Your task to perform on an android device: open chrome privacy settings Image 0: 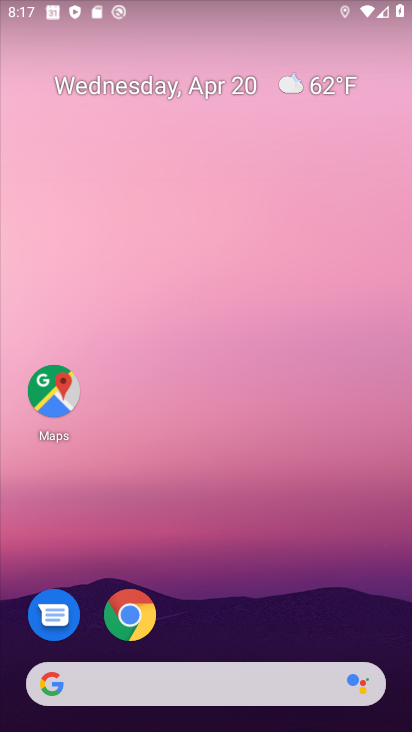
Step 0: drag from (274, 579) to (239, 82)
Your task to perform on an android device: open chrome privacy settings Image 1: 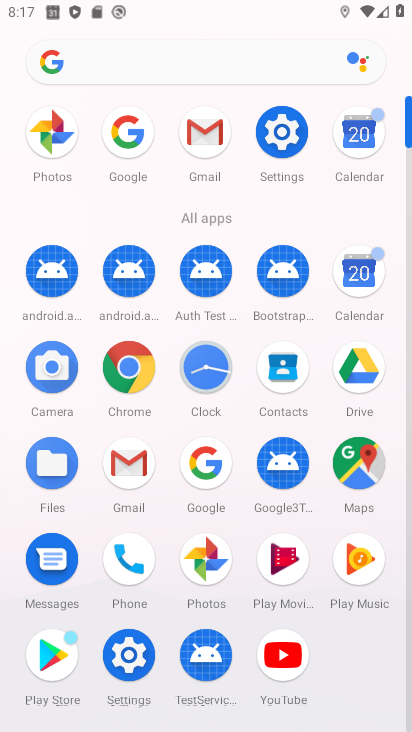
Step 1: click (130, 370)
Your task to perform on an android device: open chrome privacy settings Image 2: 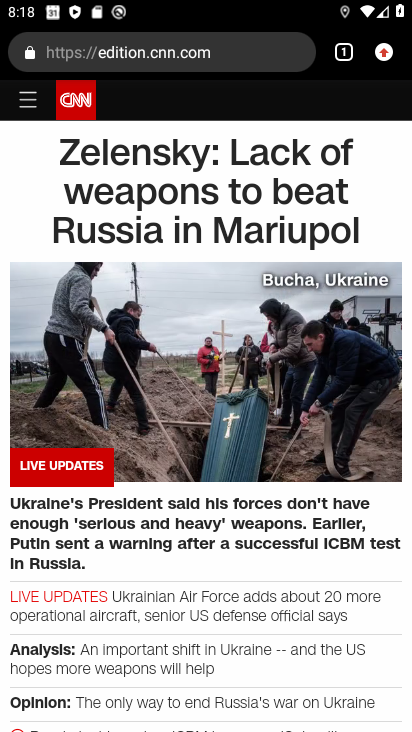
Step 2: click (385, 53)
Your task to perform on an android device: open chrome privacy settings Image 3: 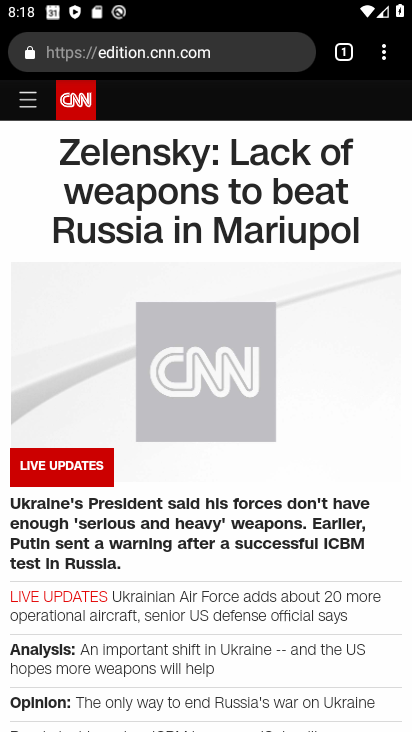
Step 3: click (385, 53)
Your task to perform on an android device: open chrome privacy settings Image 4: 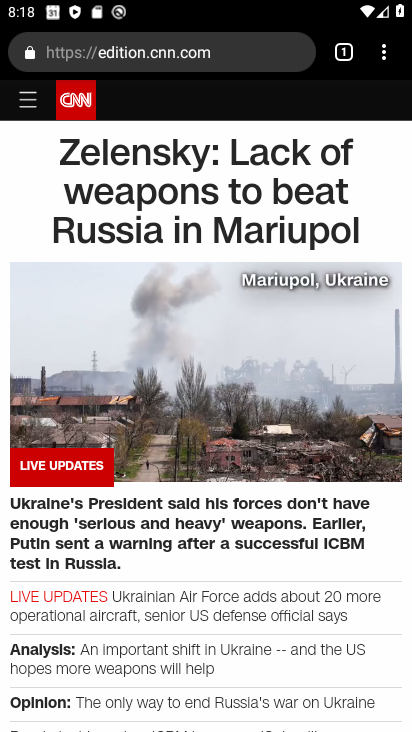
Step 4: click (380, 53)
Your task to perform on an android device: open chrome privacy settings Image 5: 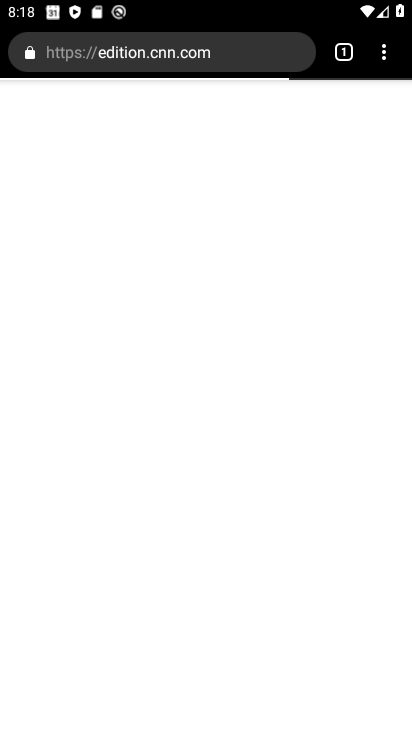
Step 5: click (380, 53)
Your task to perform on an android device: open chrome privacy settings Image 6: 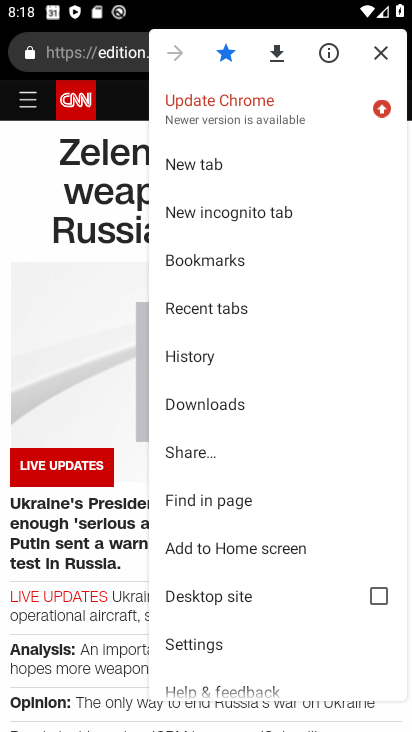
Step 6: click (211, 646)
Your task to perform on an android device: open chrome privacy settings Image 7: 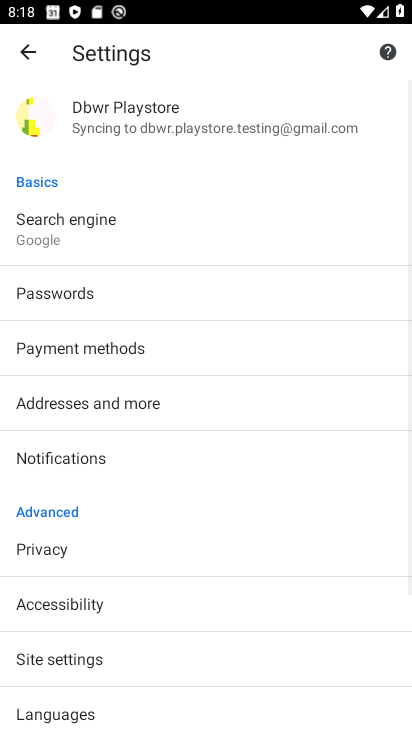
Step 7: click (111, 550)
Your task to perform on an android device: open chrome privacy settings Image 8: 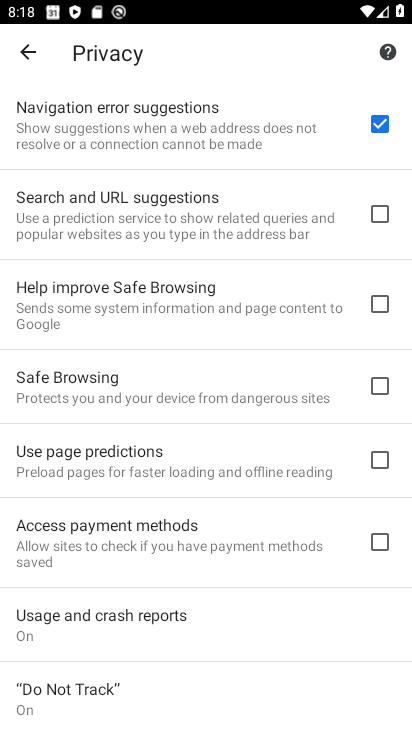
Step 8: task complete